Your task to perform on an android device: find which apps use the phone's location Image 0: 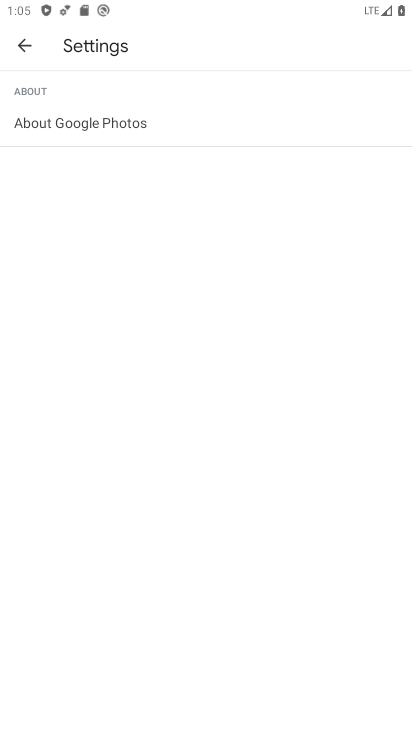
Step 0: press home button
Your task to perform on an android device: find which apps use the phone's location Image 1: 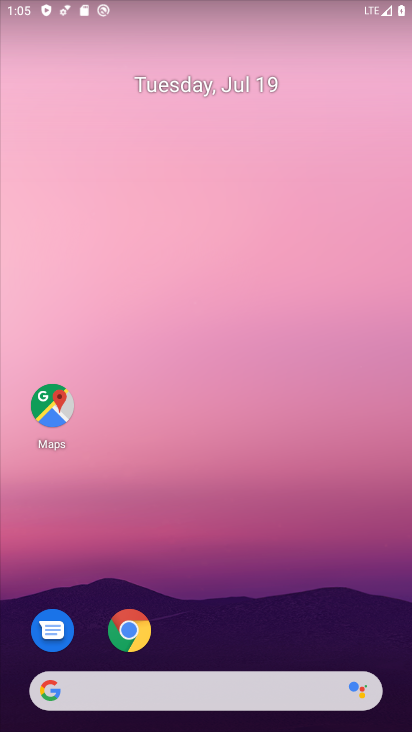
Step 1: drag from (217, 601) to (231, 207)
Your task to perform on an android device: find which apps use the phone's location Image 2: 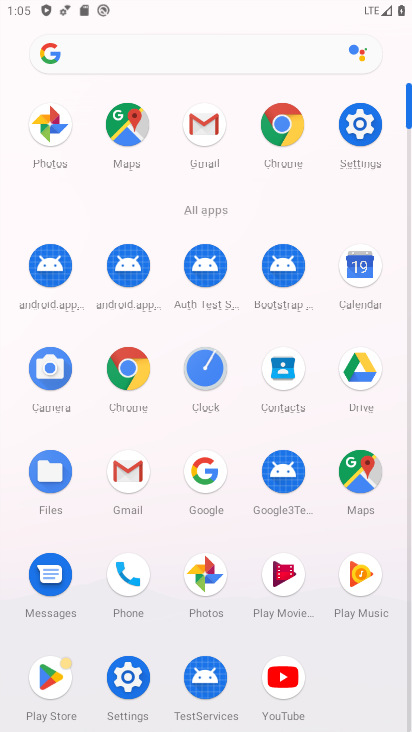
Step 2: click (132, 678)
Your task to perform on an android device: find which apps use the phone's location Image 3: 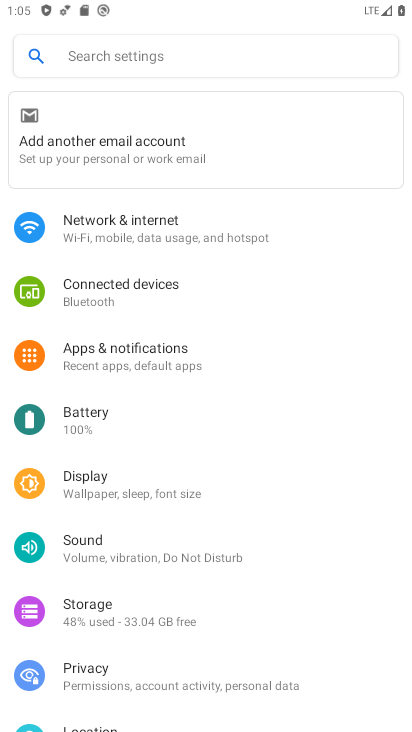
Step 3: drag from (132, 649) to (171, 396)
Your task to perform on an android device: find which apps use the phone's location Image 4: 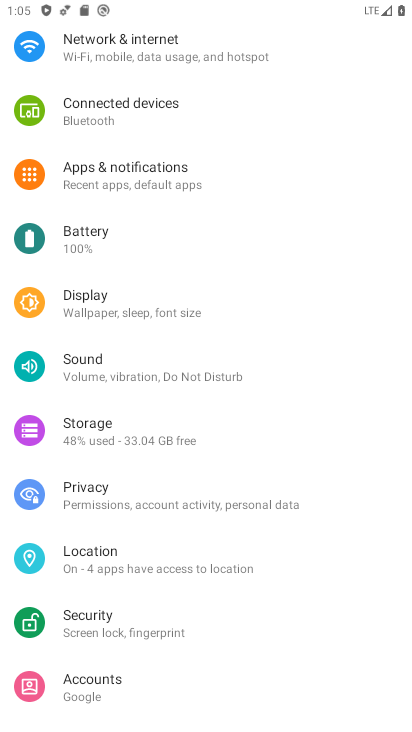
Step 4: click (141, 572)
Your task to perform on an android device: find which apps use the phone's location Image 5: 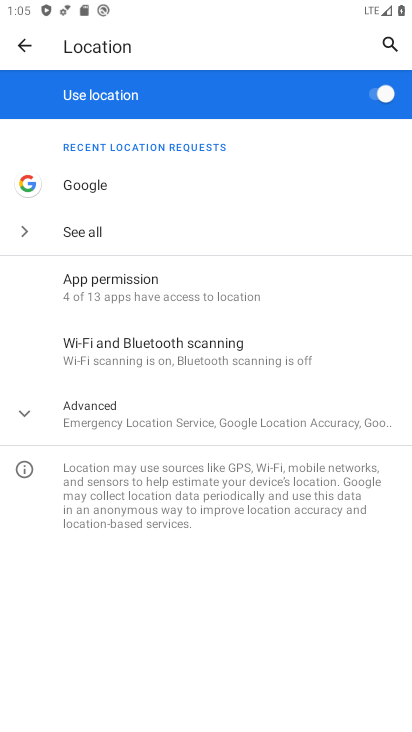
Step 5: click (162, 301)
Your task to perform on an android device: find which apps use the phone's location Image 6: 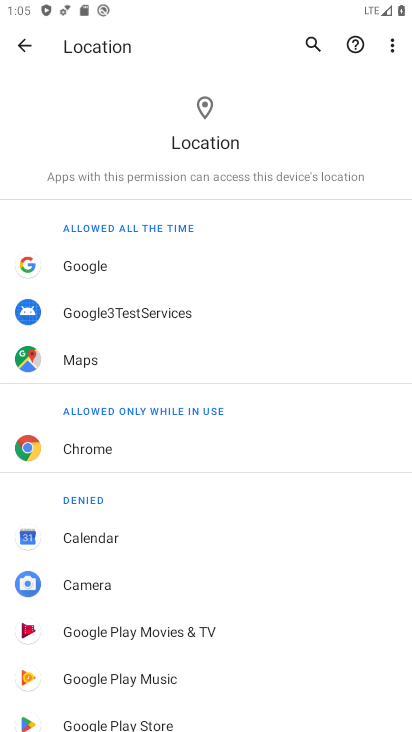
Step 6: task complete